Your task to perform on an android device: Search for Mexican restaurants on Maps Image 0: 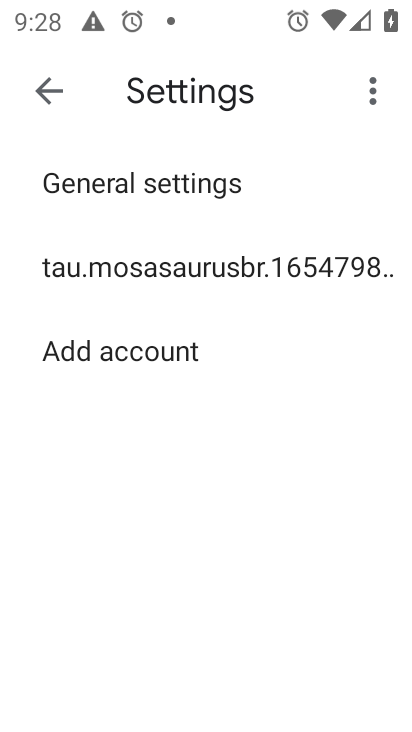
Step 0: press home button
Your task to perform on an android device: Search for Mexican restaurants on Maps Image 1: 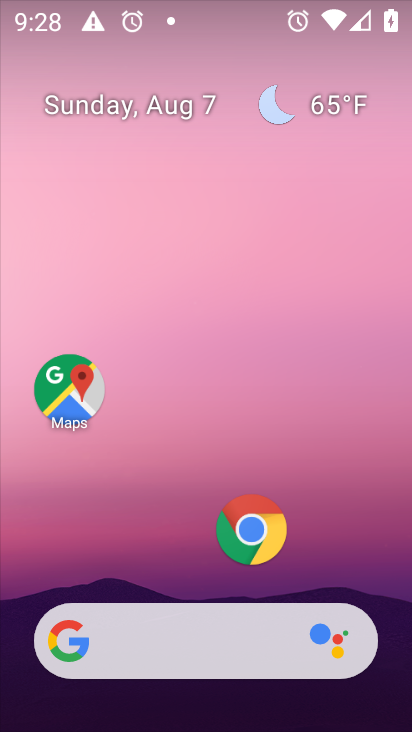
Step 1: click (76, 399)
Your task to perform on an android device: Search for Mexican restaurants on Maps Image 2: 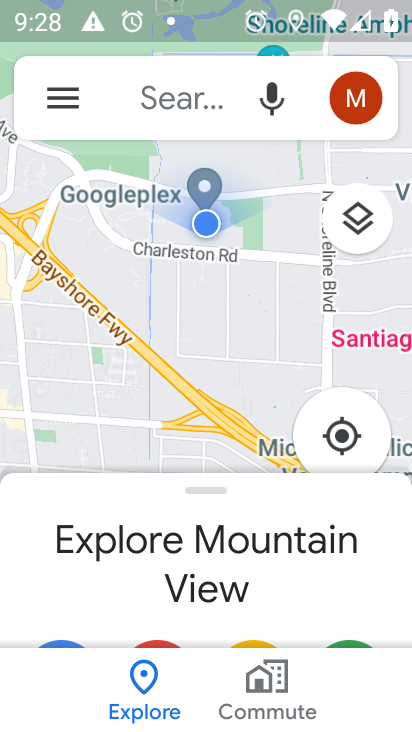
Step 2: click (149, 108)
Your task to perform on an android device: Search for Mexican restaurants on Maps Image 3: 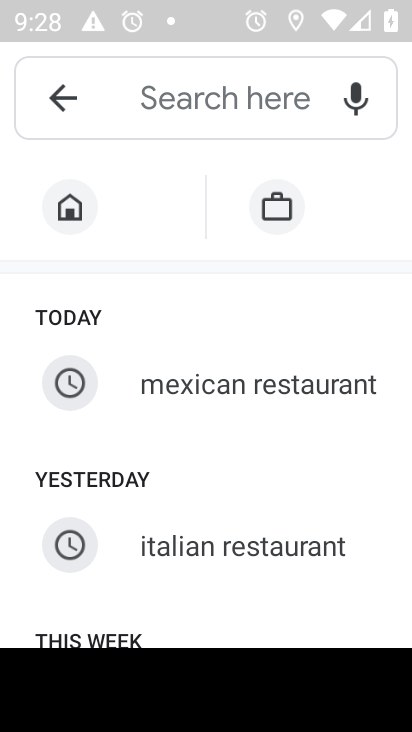
Step 3: type "mexican restaurants"
Your task to perform on an android device: Search for Mexican restaurants on Maps Image 4: 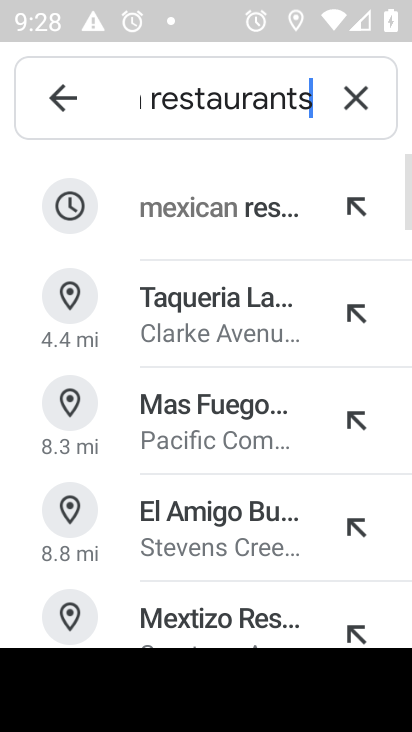
Step 4: click (231, 193)
Your task to perform on an android device: Search for Mexican restaurants on Maps Image 5: 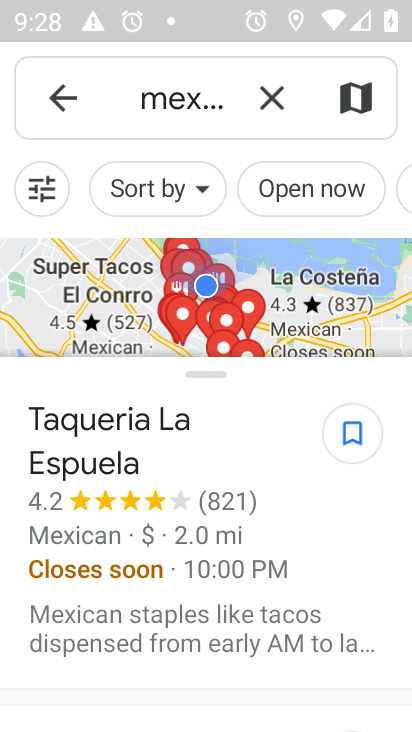
Step 5: task complete